Your task to perform on an android device: turn on translation in the chrome app Image 0: 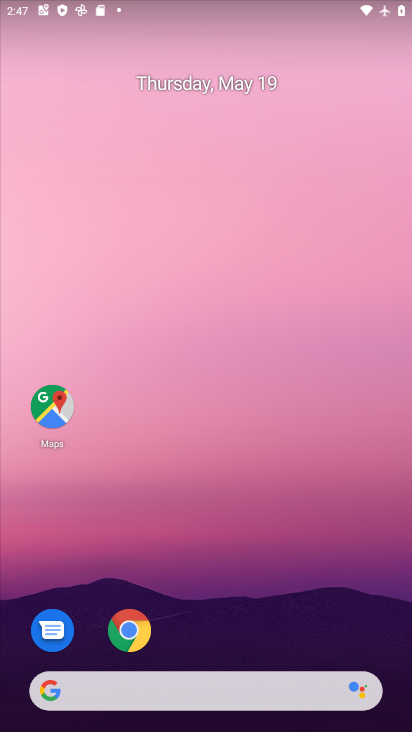
Step 0: click (130, 632)
Your task to perform on an android device: turn on translation in the chrome app Image 1: 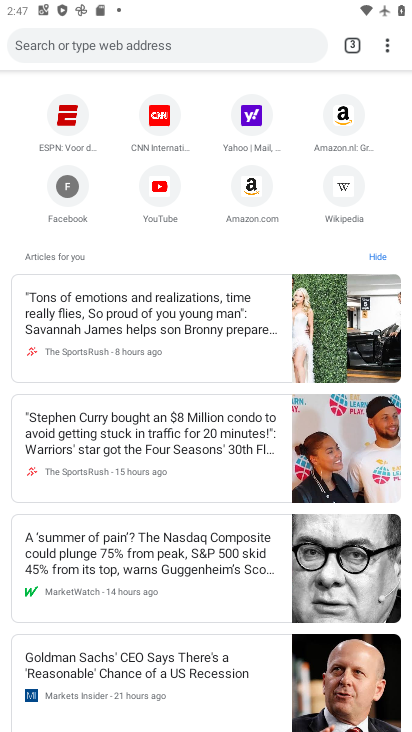
Step 1: click (387, 46)
Your task to perform on an android device: turn on translation in the chrome app Image 2: 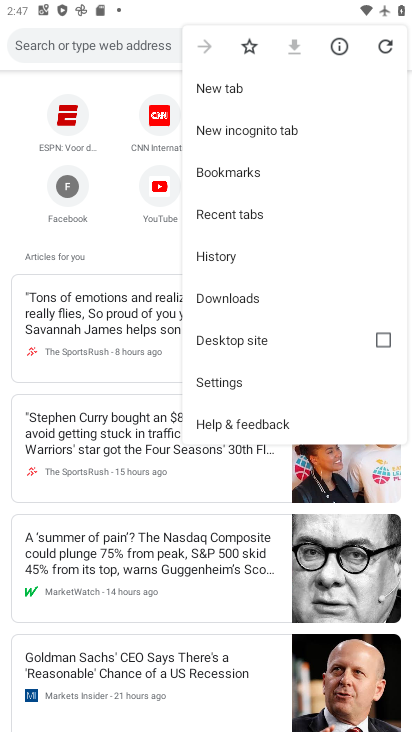
Step 2: click (220, 379)
Your task to perform on an android device: turn on translation in the chrome app Image 3: 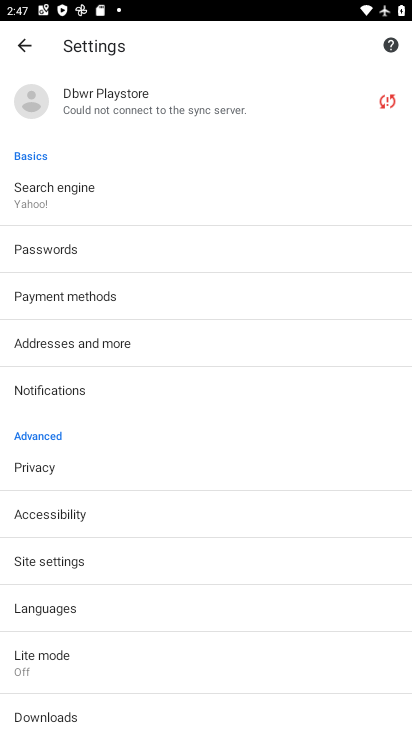
Step 3: click (55, 601)
Your task to perform on an android device: turn on translation in the chrome app Image 4: 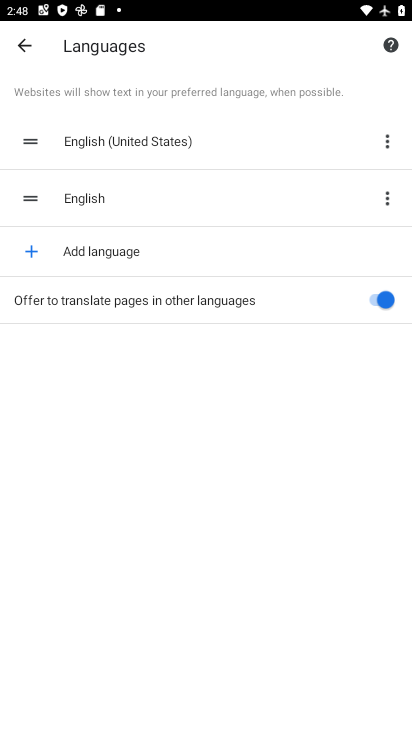
Step 4: task complete